Your task to perform on an android device: add a contact in the contacts app Image 0: 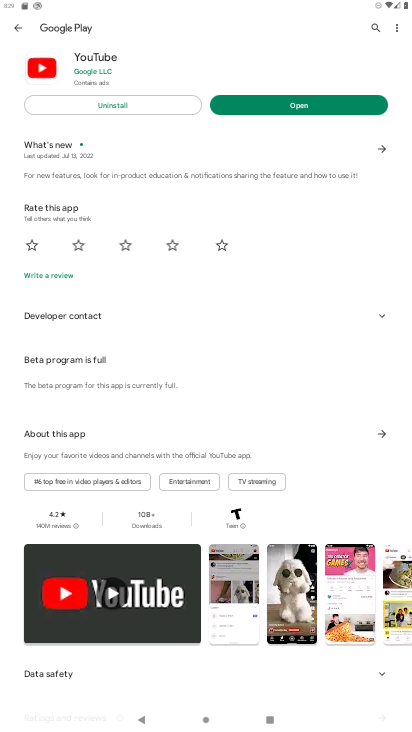
Step 0: press home button
Your task to perform on an android device: add a contact in the contacts app Image 1: 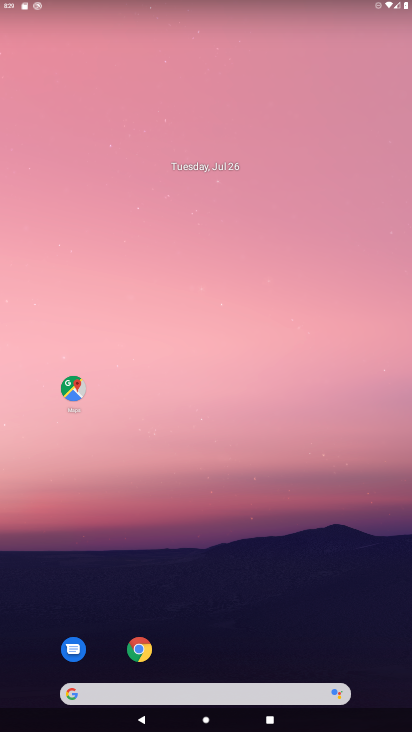
Step 1: drag from (224, 667) to (286, 4)
Your task to perform on an android device: add a contact in the contacts app Image 2: 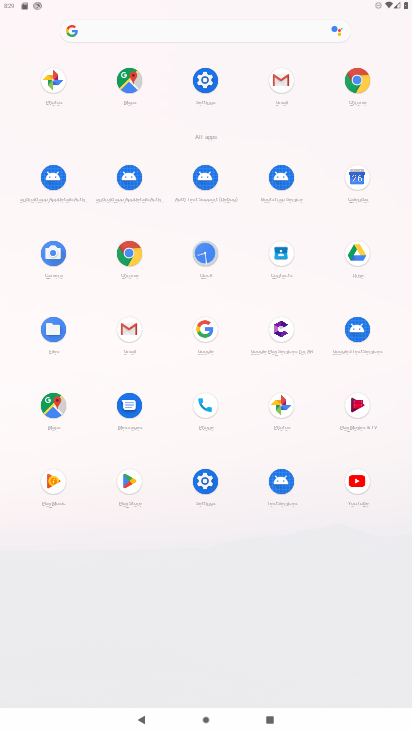
Step 2: click (276, 259)
Your task to perform on an android device: add a contact in the contacts app Image 3: 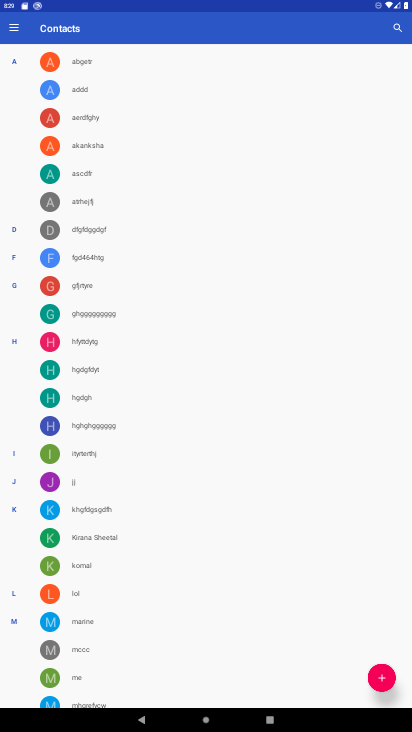
Step 3: click (387, 668)
Your task to perform on an android device: add a contact in the contacts app Image 4: 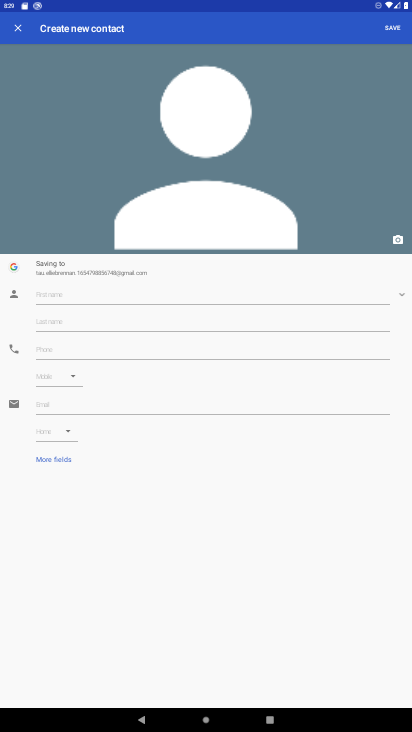
Step 4: type "poijhgbv"
Your task to perform on an android device: add a contact in the contacts app Image 5: 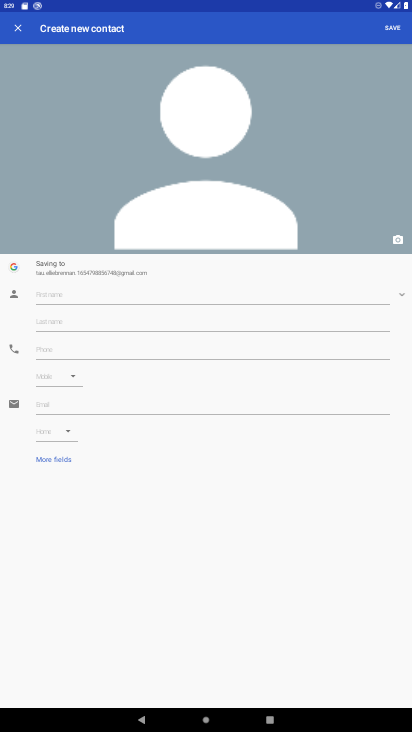
Step 5: click (106, 348)
Your task to perform on an android device: add a contact in the contacts app Image 6: 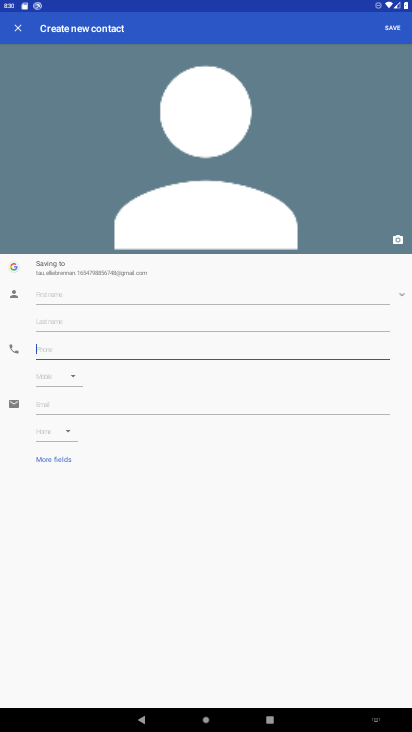
Step 6: type "i876543"
Your task to perform on an android device: add a contact in the contacts app Image 7: 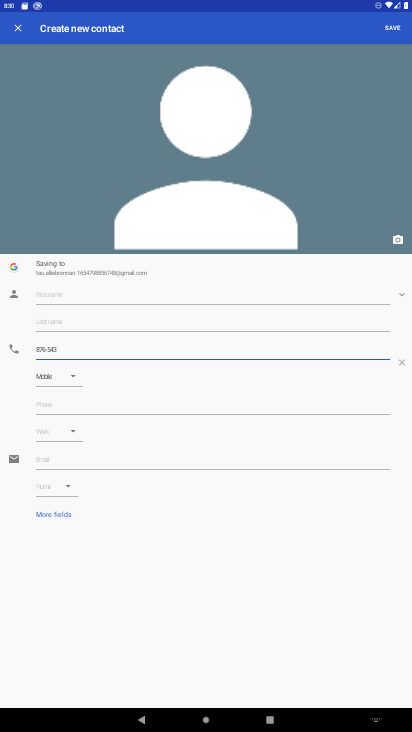
Step 7: click (125, 290)
Your task to perform on an android device: add a contact in the contacts app Image 8: 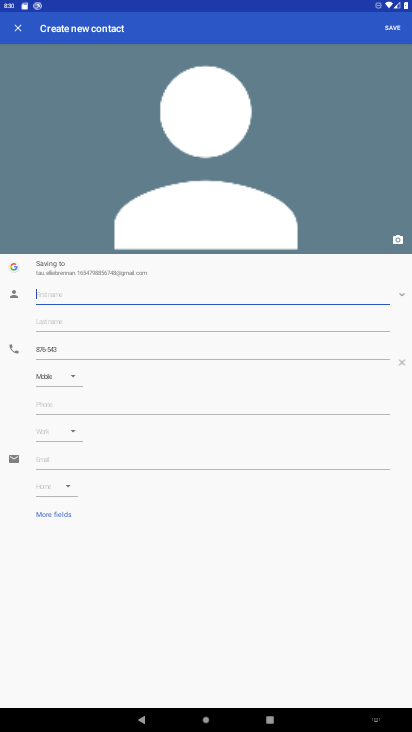
Step 8: click (121, 294)
Your task to perform on an android device: add a contact in the contacts app Image 9: 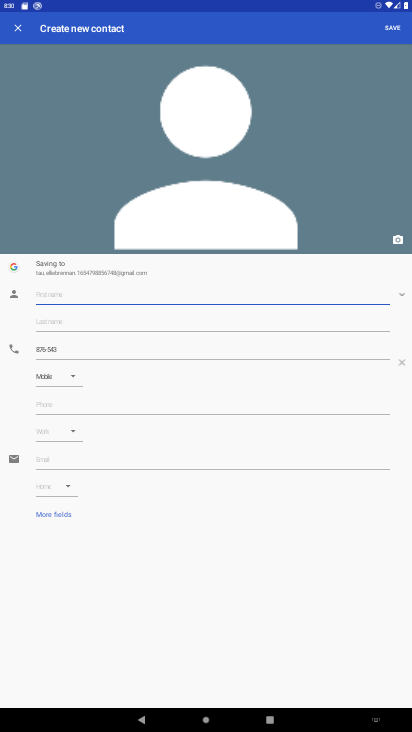
Step 9: type "lokjhbgvfcxdfgth"
Your task to perform on an android device: add a contact in the contacts app Image 10: 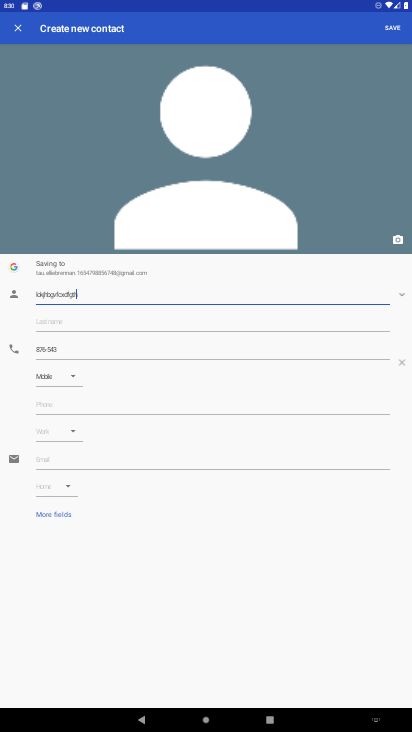
Step 10: click (408, 30)
Your task to perform on an android device: add a contact in the contacts app Image 11: 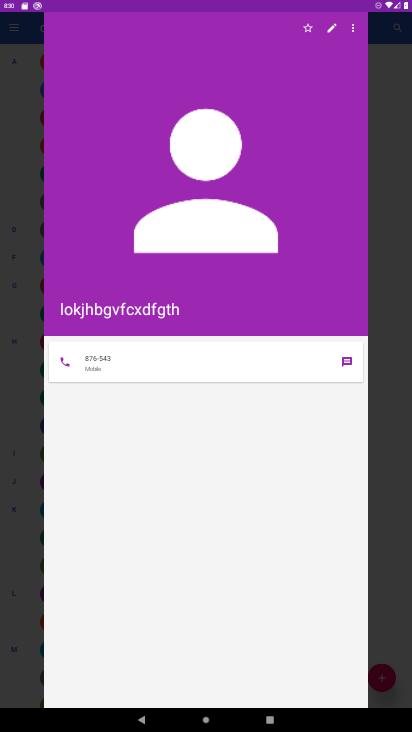
Step 11: task complete